Your task to perform on an android device: set the timer Image 0: 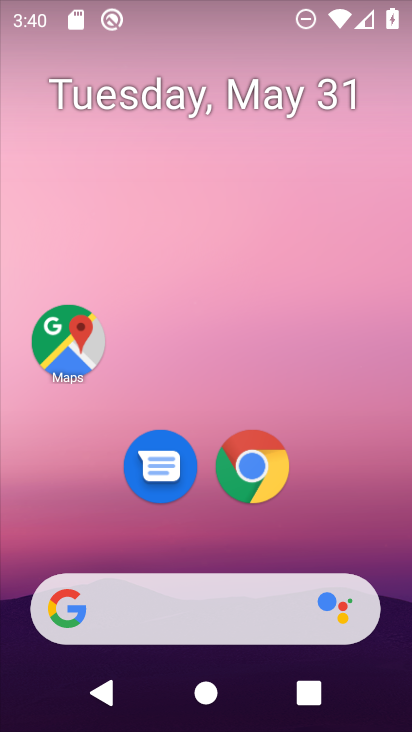
Step 0: drag from (194, 517) to (245, 7)
Your task to perform on an android device: set the timer Image 1: 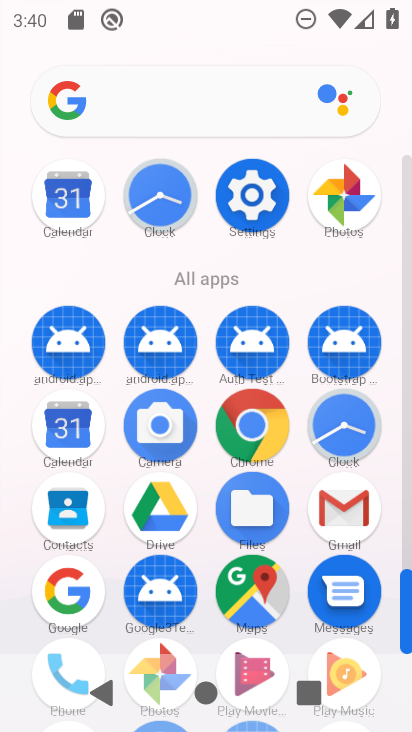
Step 1: click (363, 431)
Your task to perform on an android device: set the timer Image 2: 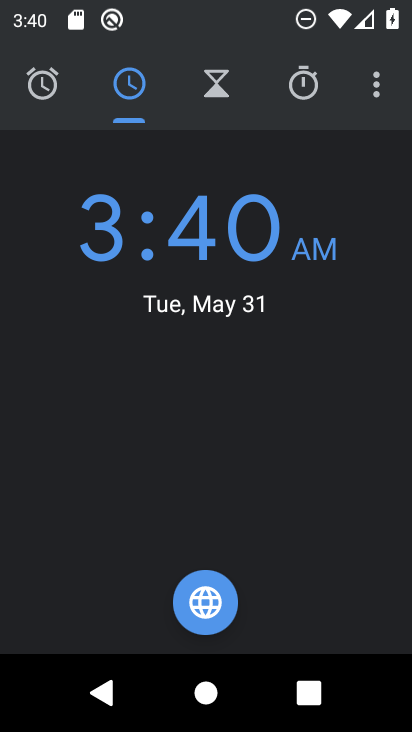
Step 2: click (378, 83)
Your task to perform on an android device: set the timer Image 3: 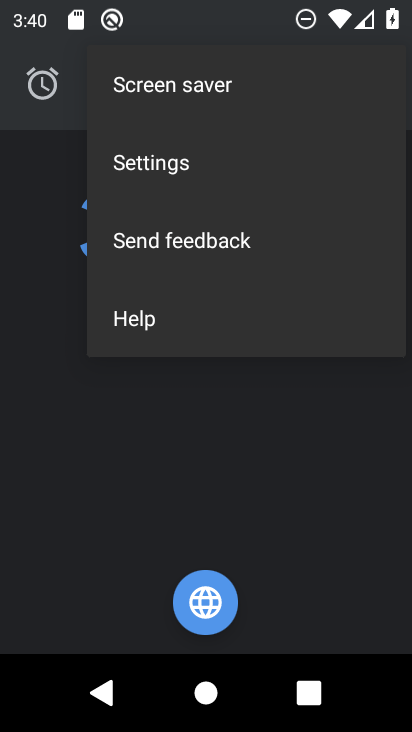
Step 3: click (72, 416)
Your task to perform on an android device: set the timer Image 4: 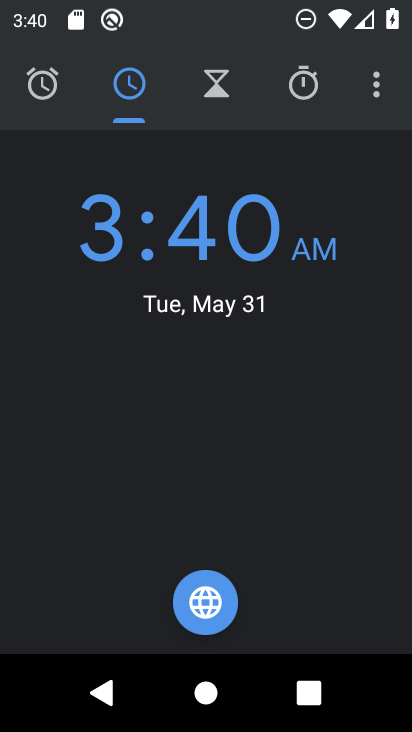
Step 4: click (216, 84)
Your task to perform on an android device: set the timer Image 5: 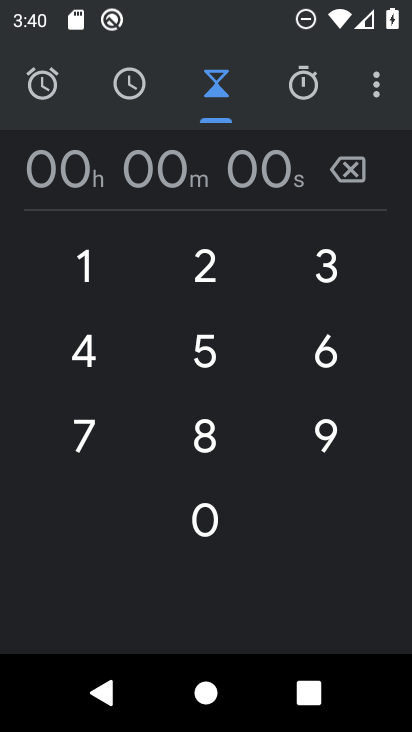
Step 5: click (213, 251)
Your task to perform on an android device: set the timer Image 6: 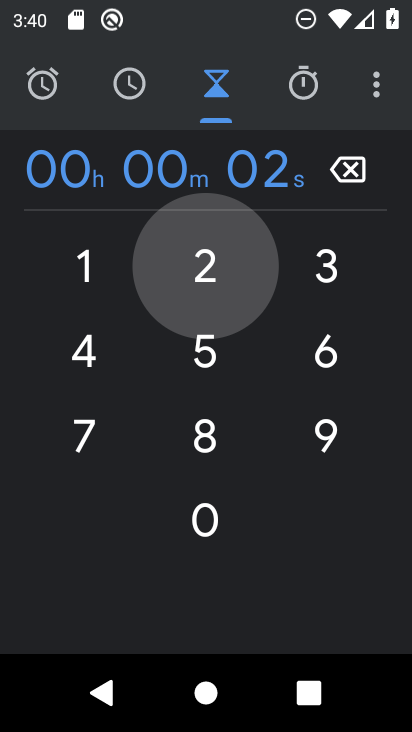
Step 6: click (339, 264)
Your task to perform on an android device: set the timer Image 7: 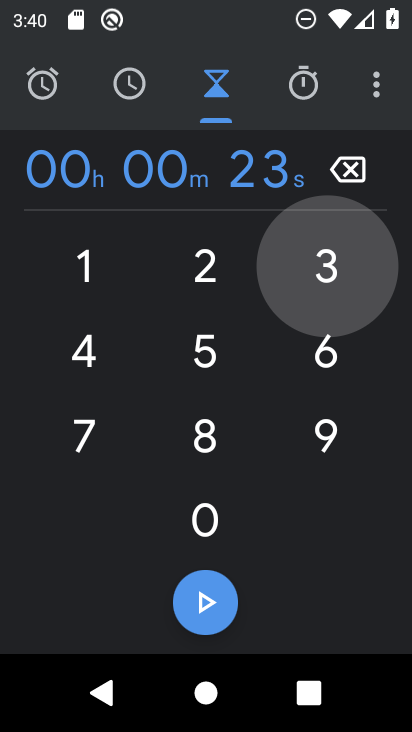
Step 7: click (194, 348)
Your task to perform on an android device: set the timer Image 8: 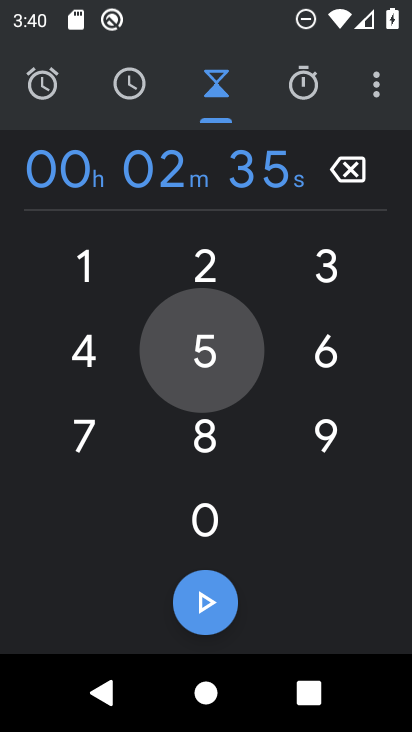
Step 8: click (300, 344)
Your task to perform on an android device: set the timer Image 9: 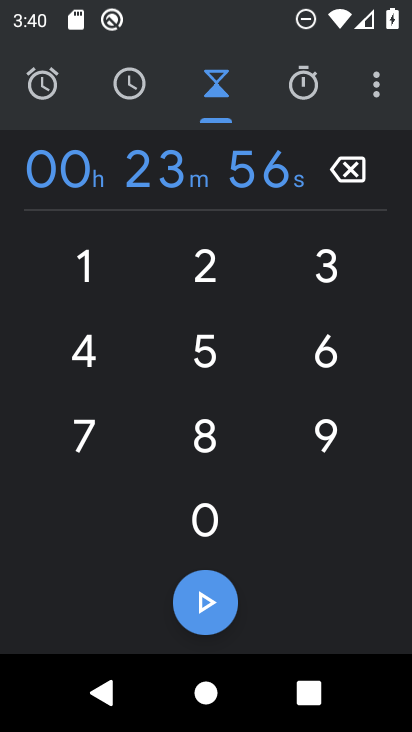
Step 9: click (196, 595)
Your task to perform on an android device: set the timer Image 10: 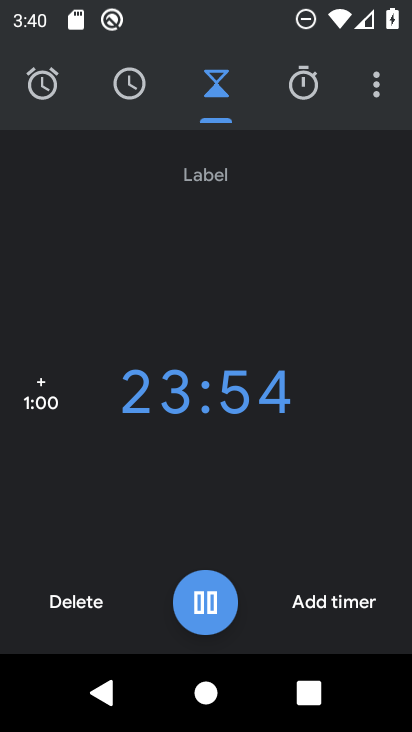
Step 10: task complete